Your task to perform on an android device: Open calendar and show me the third week of next month Image 0: 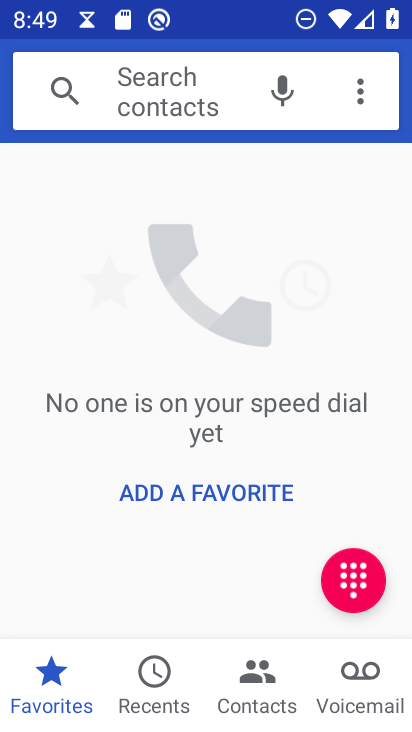
Step 0: press home button
Your task to perform on an android device: Open calendar and show me the third week of next month Image 1: 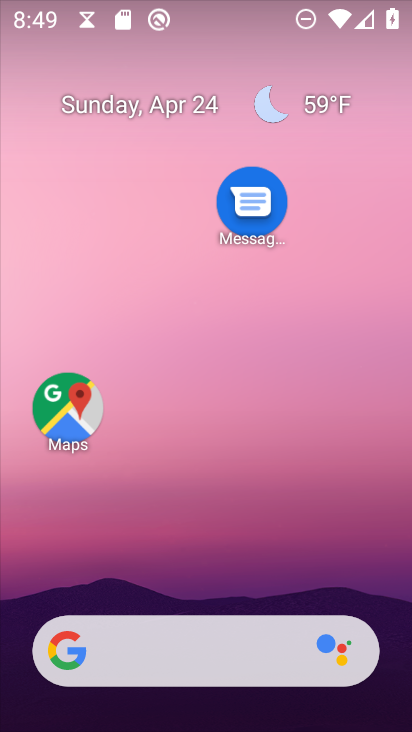
Step 1: drag from (196, 629) to (269, 83)
Your task to perform on an android device: Open calendar and show me the third week of next month Image 2: 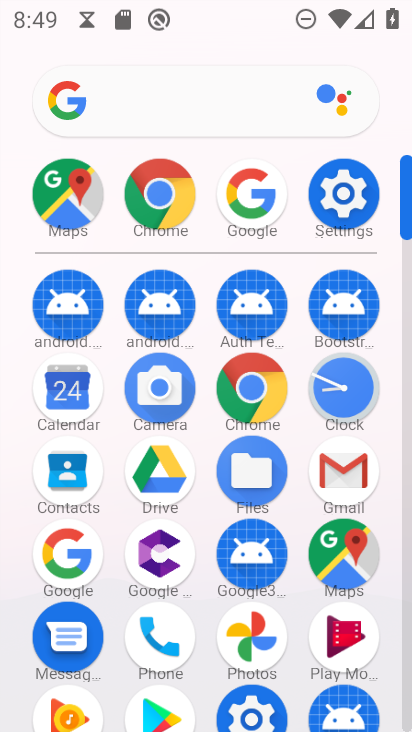
Step 2: click (80, 398)
Your task to perform on an android device: Open calendar and show me the third week of next month Image 3: 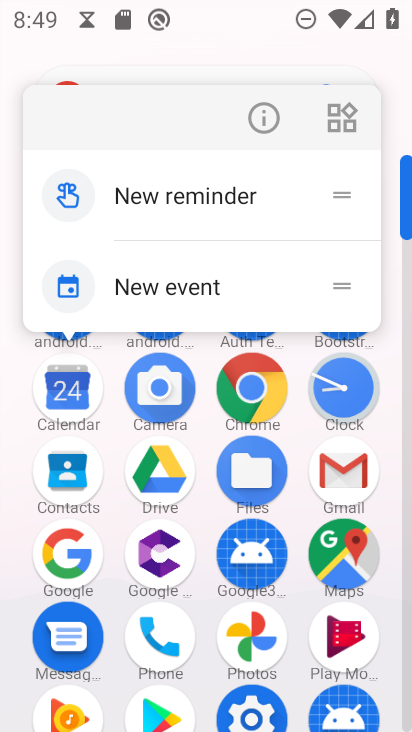
Step 3: click (65, 397)
Your task to perform on an android device: Open calendar and show me the third week of next month Image 4: 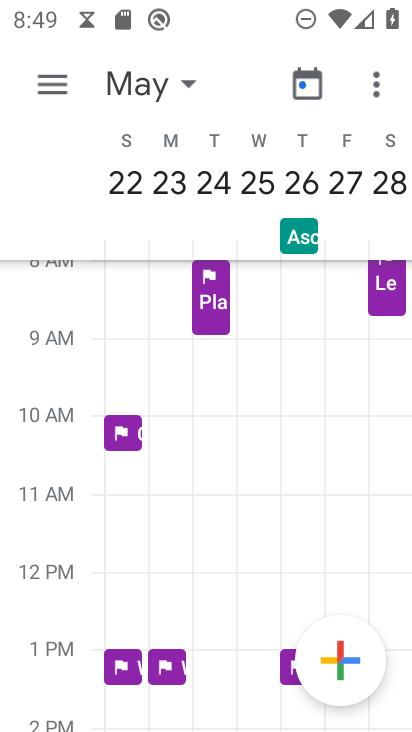
Step 4: click (138, 87)
Your task to perform on an android device: Open calendar and show me the third week of next month Image 5: 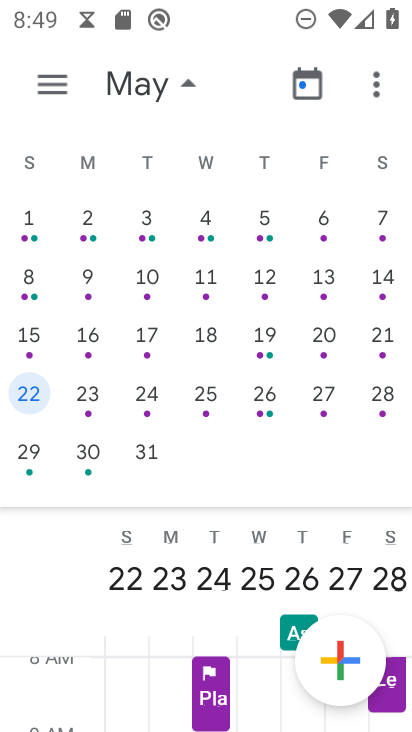
Step 5: click (31, 327)
Your task to perform on an android device: Open calendar and show me the third week of next month Image 6: 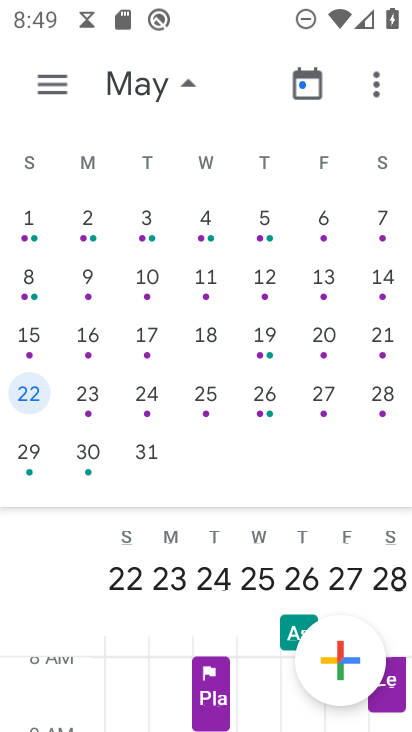
Step 6: click (31, 334)
Your task to perform on an android device: Open calendar and show me the third week of next month Image 7: 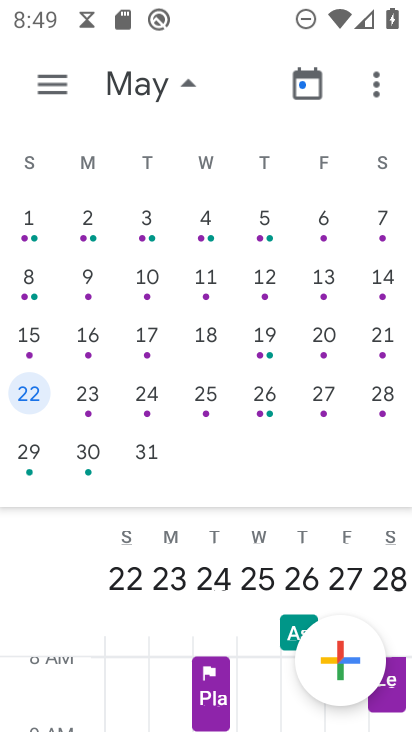
Step 7: click (44, 338)
Your task to perform on an android device: Open calendar and show me the third week of next month Image 8: 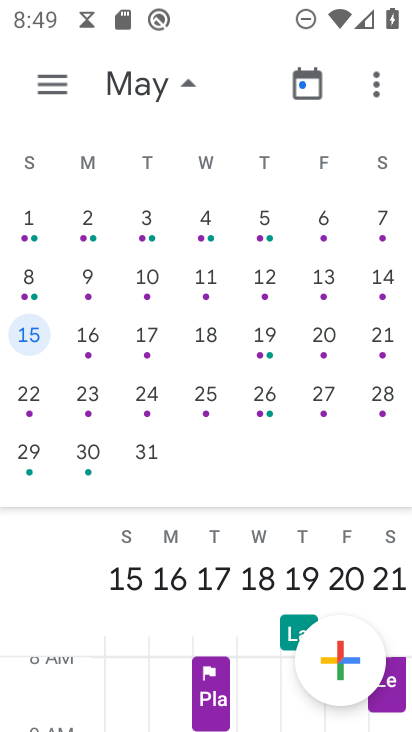
Step 8: click (54, 83)
Your task to perform on an android device: Open calendar and show me the third week of next month Image 9: 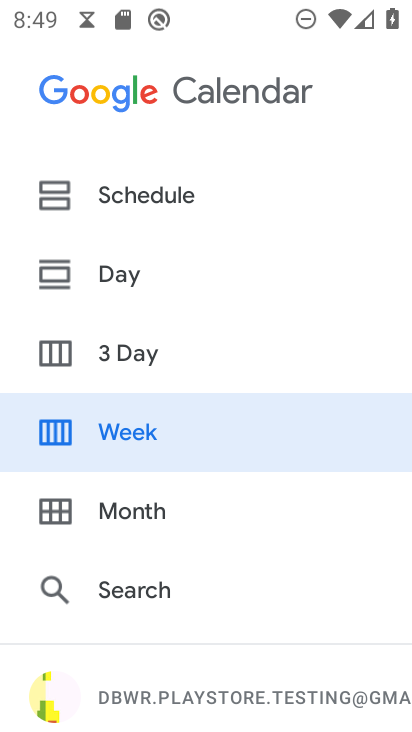
Step 9: click (136, 427)
Your task to perform on an android device: Open calendar and show me the third week of next month Image 10: 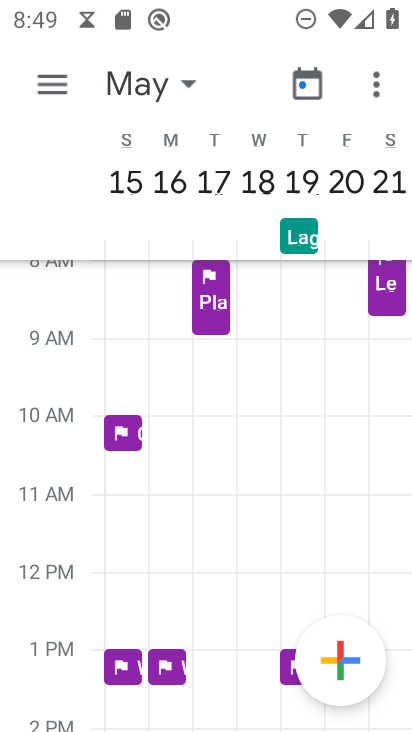
Step 10: task complete